Your task to perform on an android device: Open calendar and show me the second week of next month Image 0: 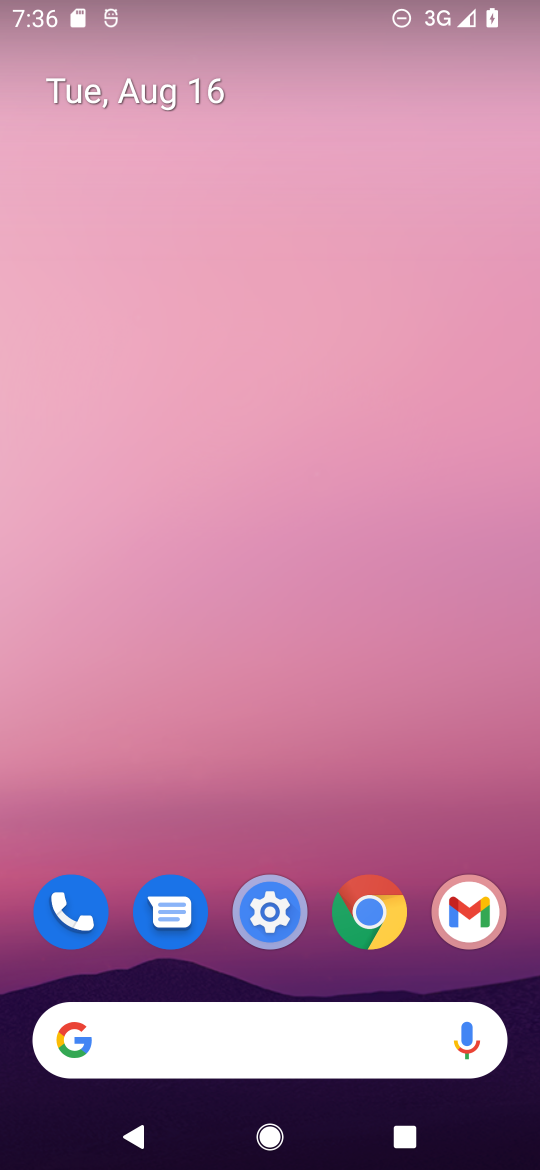
Step 0: drag from (421, 964) to (370, 168)
Your task to perform on an android device: Open calendar and show me the second week of next month Image 1: 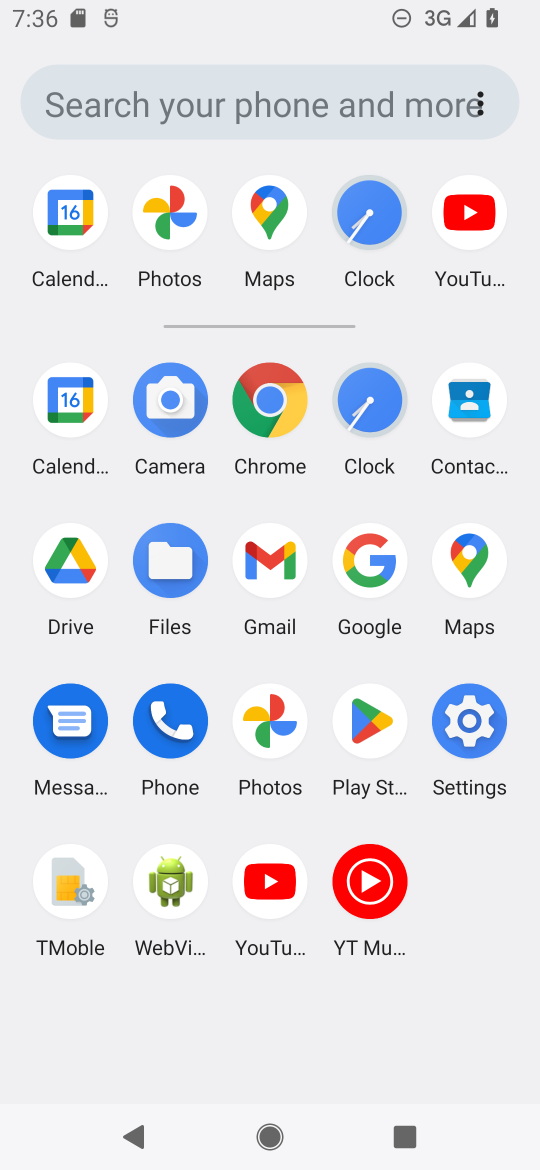
Step 1: click (67, 398)
Your task to perform on an android device: Open calendar and show me the second week of next month Image 2: 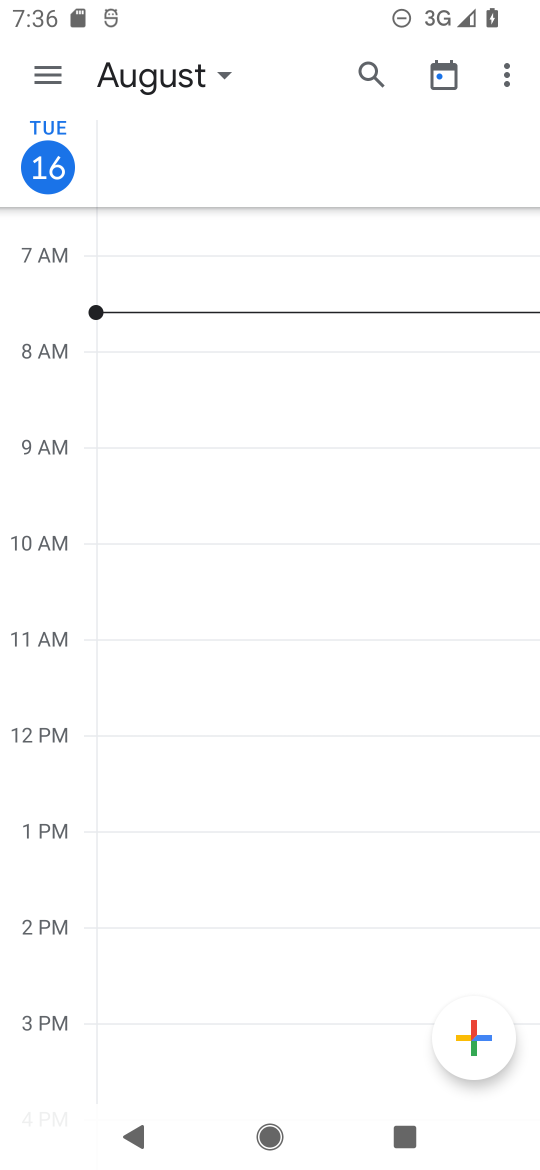
Step 2: click (37, 81)
Your task to perform on an android device: Open calendar and show me the second week of next month Image 3: 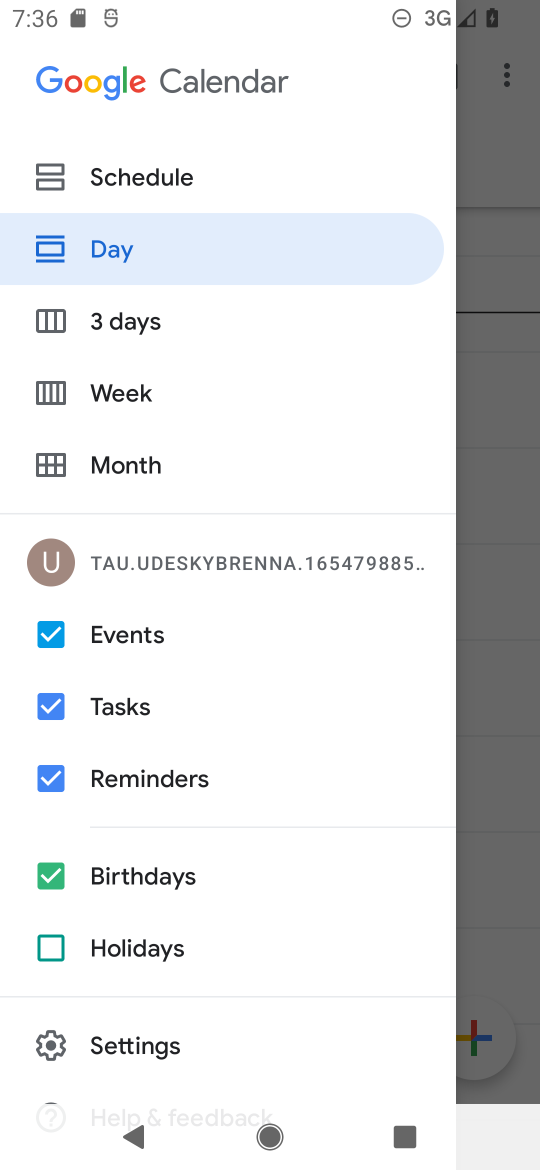
Step 3: click (127, 392)
Your task to perform on an android device: Open calendar and show me the second week of next month Image 4: 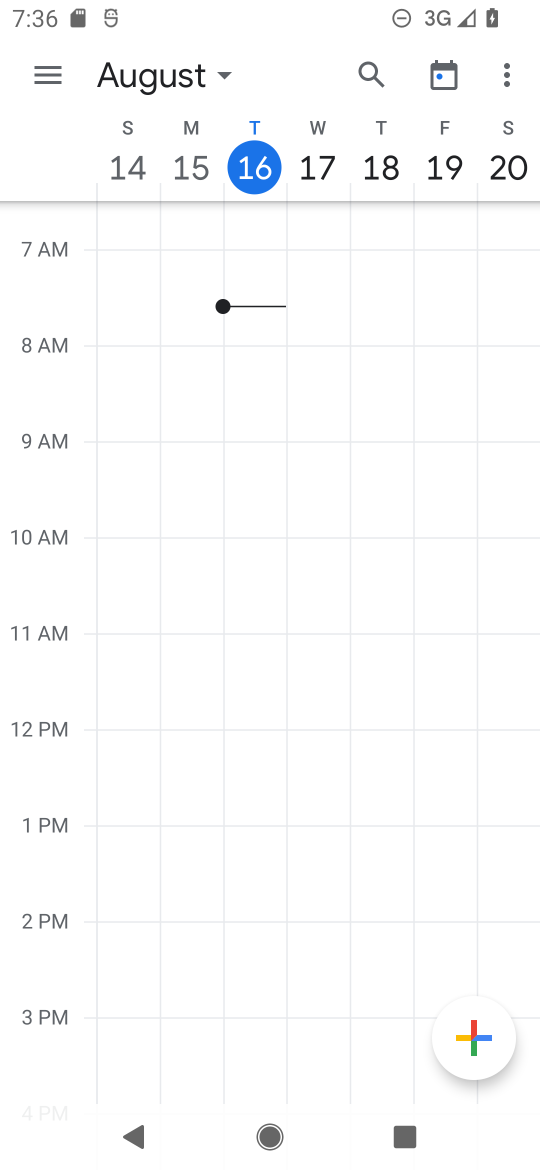
Step 4: click (227, 79)
Your task to perform on an android device: Open calendar and show me the second week of next month Image 5: 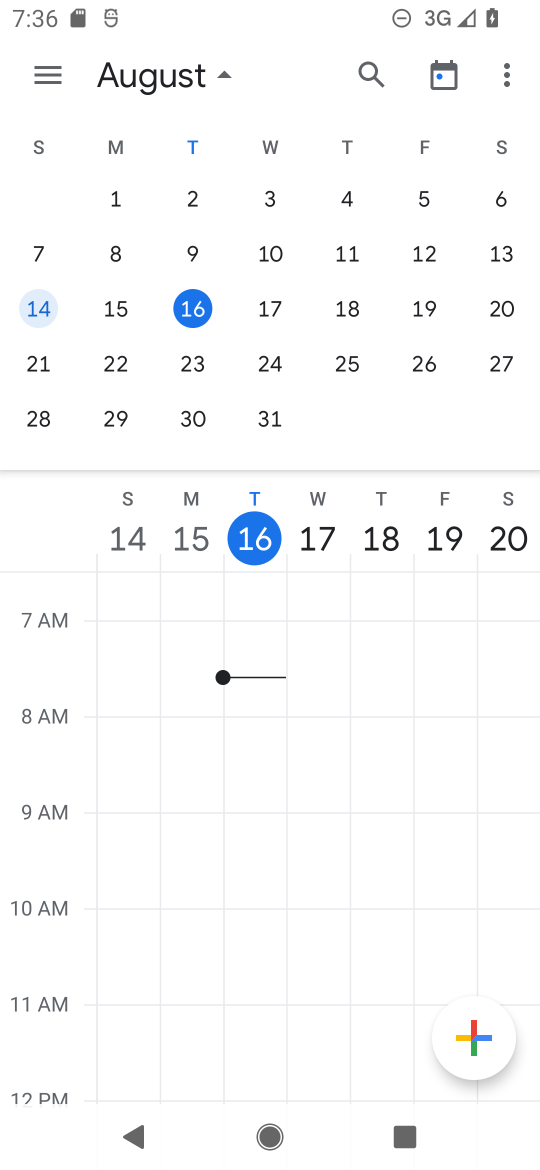
Step 5: drag from (497, 329) to (17, 297)
Your task to perform on an android device: Open calendar and show me the second week of next month Image 6: 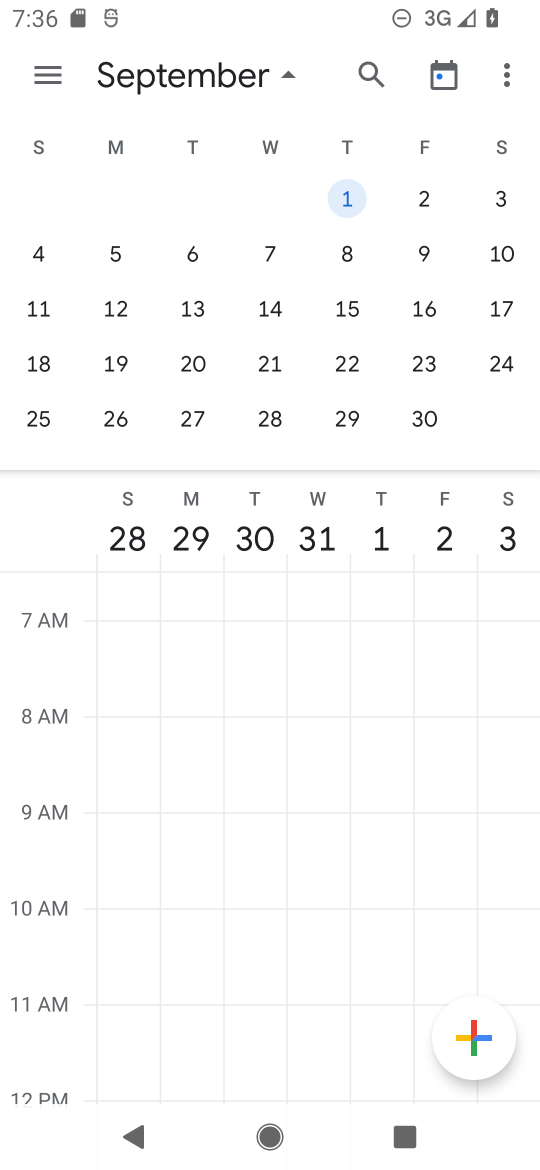
Step 6: click (34, 307)
Your task to perform on an android device: Open calendar and show me the second week of next month Image 7: 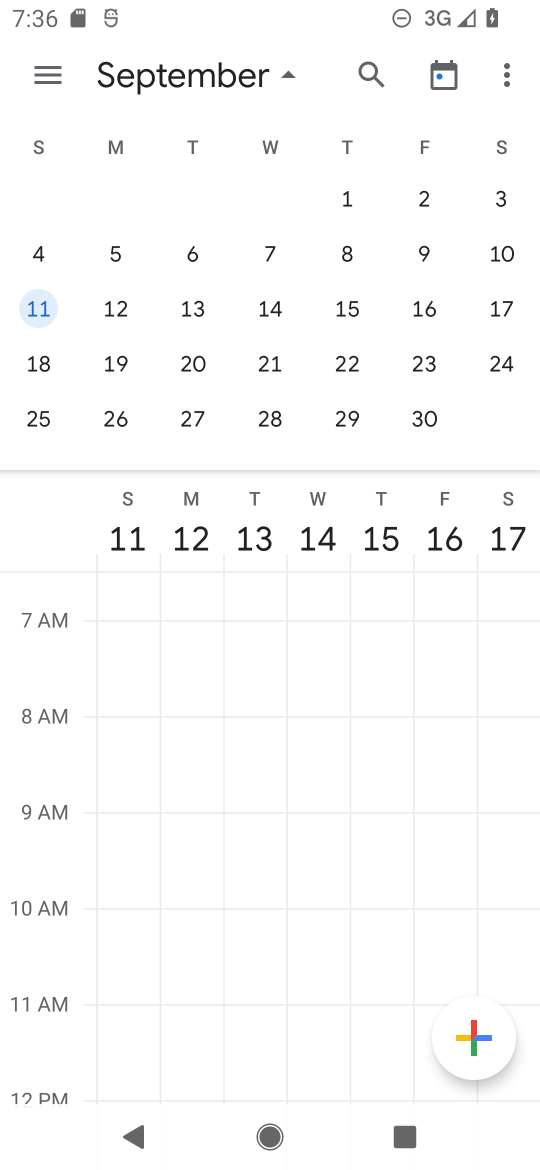
Step 7: task complete